Your task to perform on an android device: move a message to another label in the gmail app Image 0: 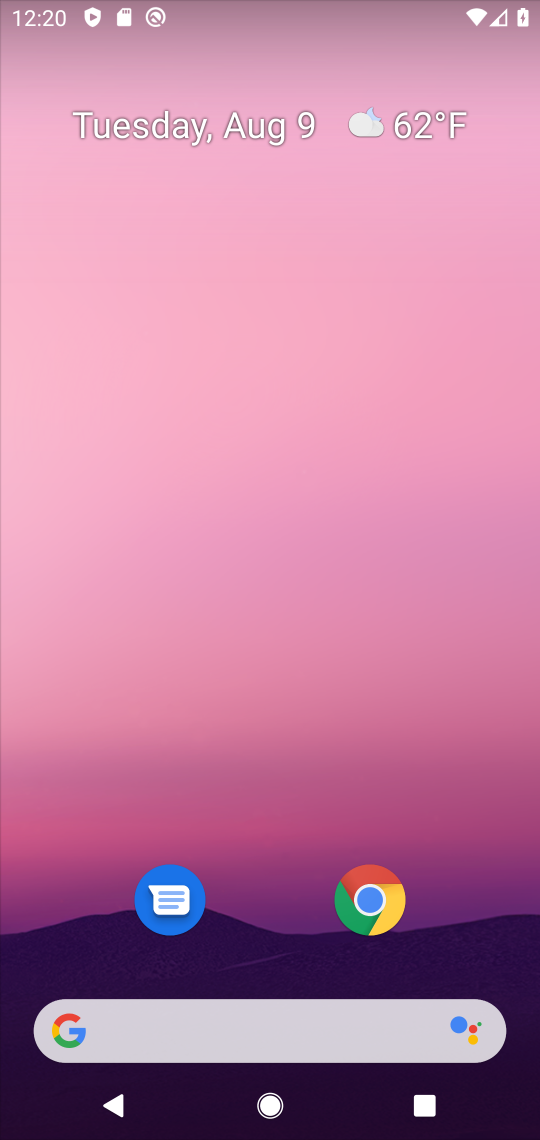
Step 0: drag from (289, 911) to (337, 450)
Your task to perform on an android device: move a message to another label in the gmail app Image 1: 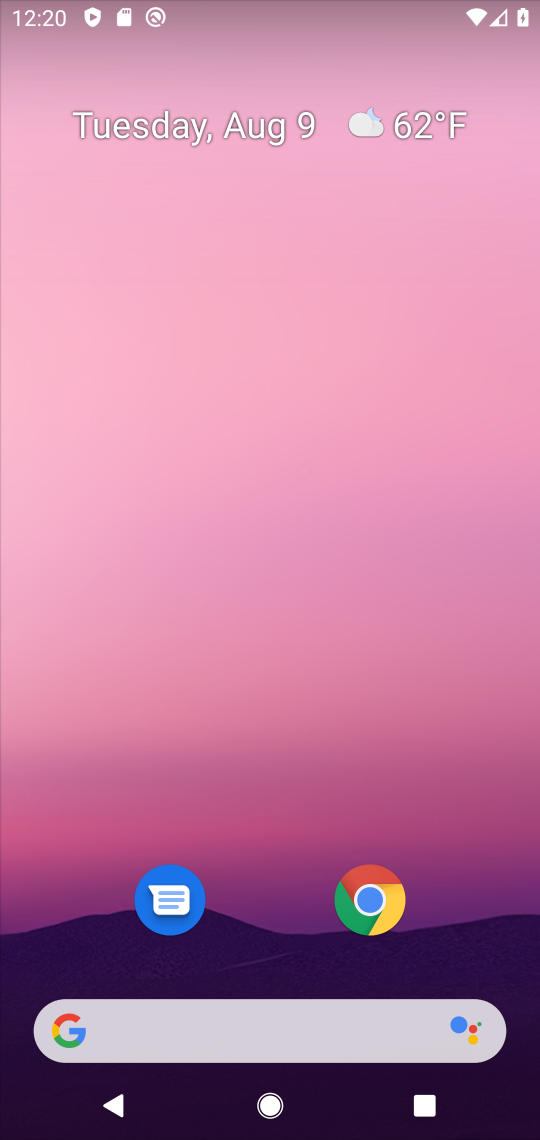
Step 1: drag from (225, 901) to (249, 378)
Your task to perform on an android device: move a message to another label in the gmail app Image 2: 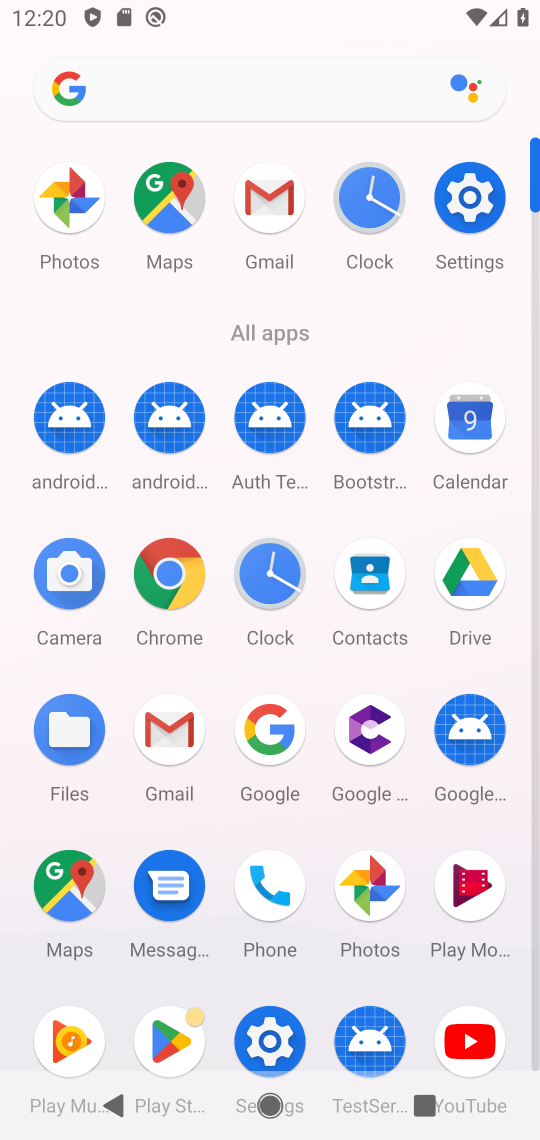
Step 2: click (273, 205)
Your task to perform on an android device: move a message to another label in the gmail app Image 3: 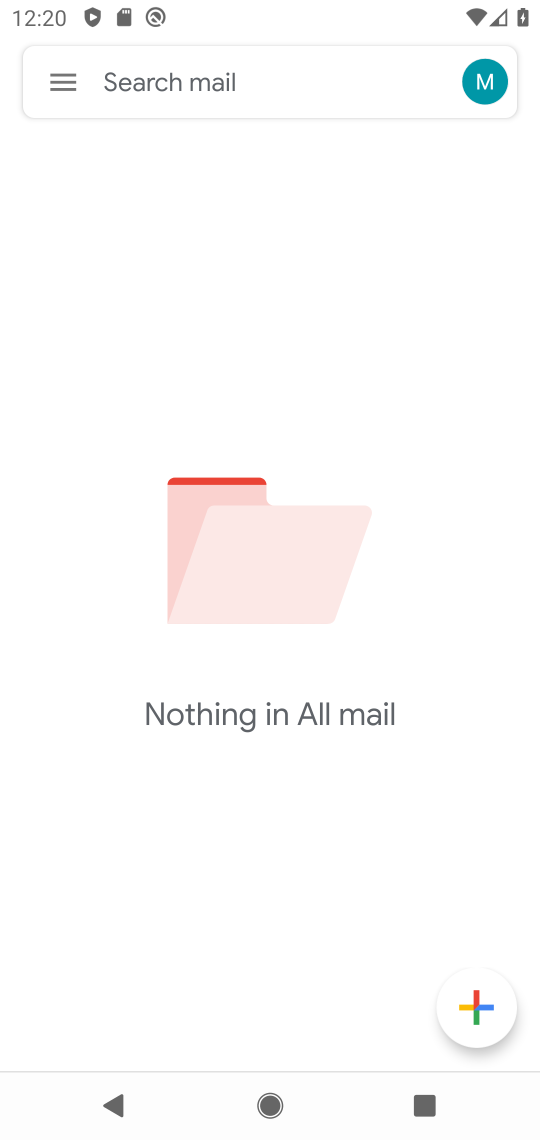
Step 3: task complete